Your task to perform on an android device: Search for seafood restaurants on Google Maps Image 0: 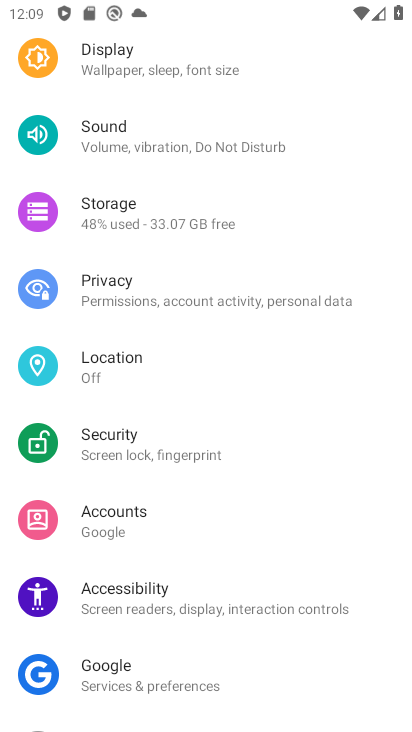
Step 0: press home button
Your task to perform on an android device: Search for seafood restaurants on Google Maps Image 1: 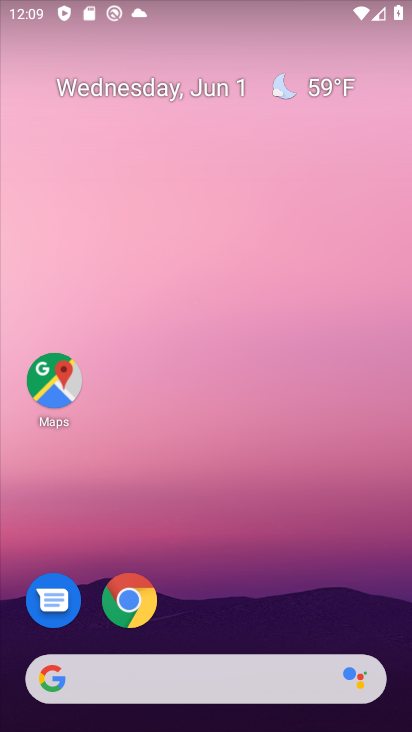
Step 1: click (53, 367)
Your task to perform on an android device: Search for seafood restaurants on Google Maps Image 2: 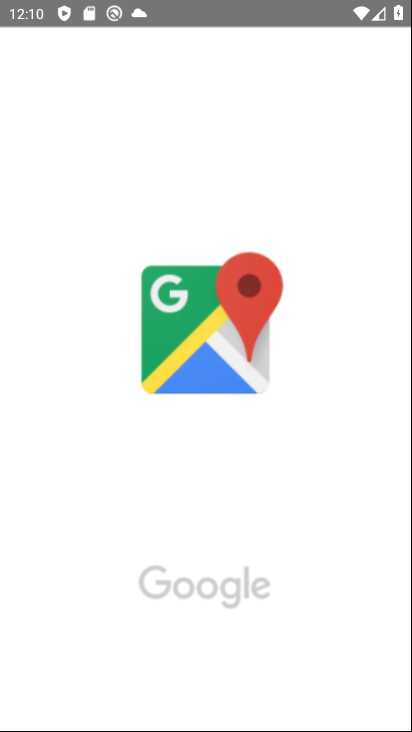
Step 2: task complete